Your task to perform on an android device: uninstall "PUBG MOBILE" Image 0: 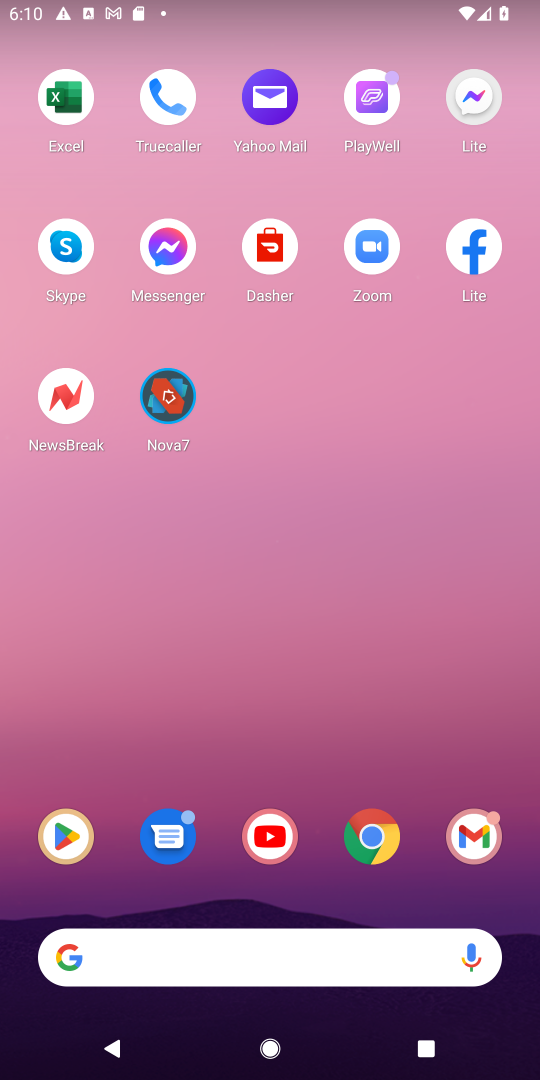
Step 0: press home button
Your task to perform on an android device: uninstall "PUBG MOBILE" Image 1: 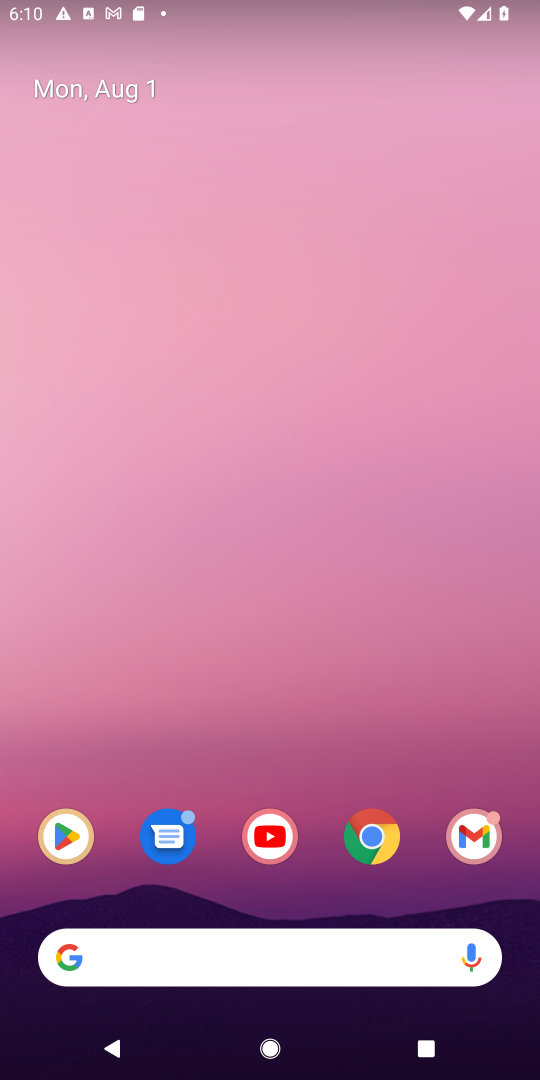
Step 1: click (70, 839)
Your task to perform on an android device: uninstall "PUBG MOBILE" Image 2: 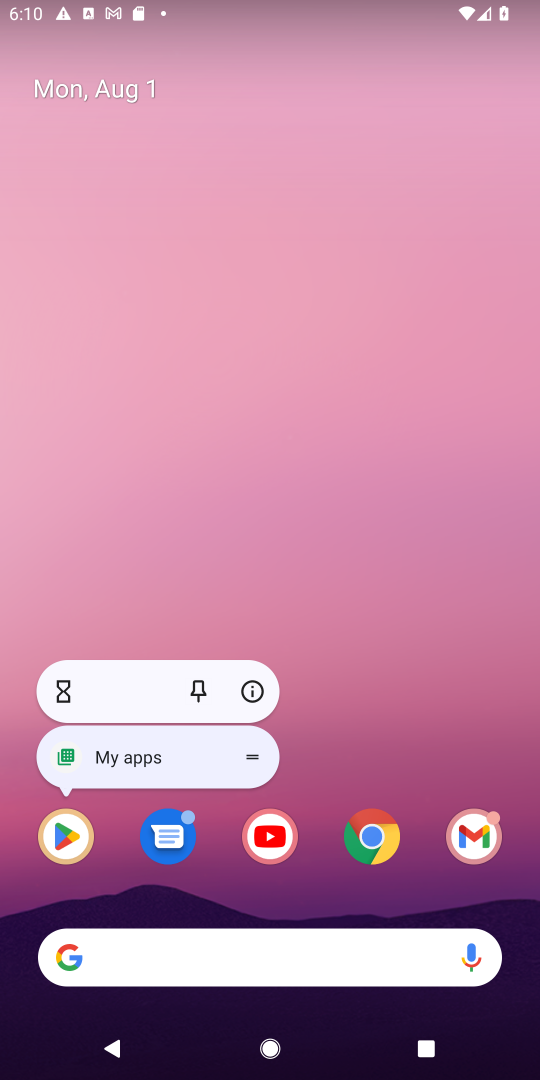
Step 2: click (58, 841)
Your task to perform on an android device: uninstall "PUBG MOBILE" Image 3: 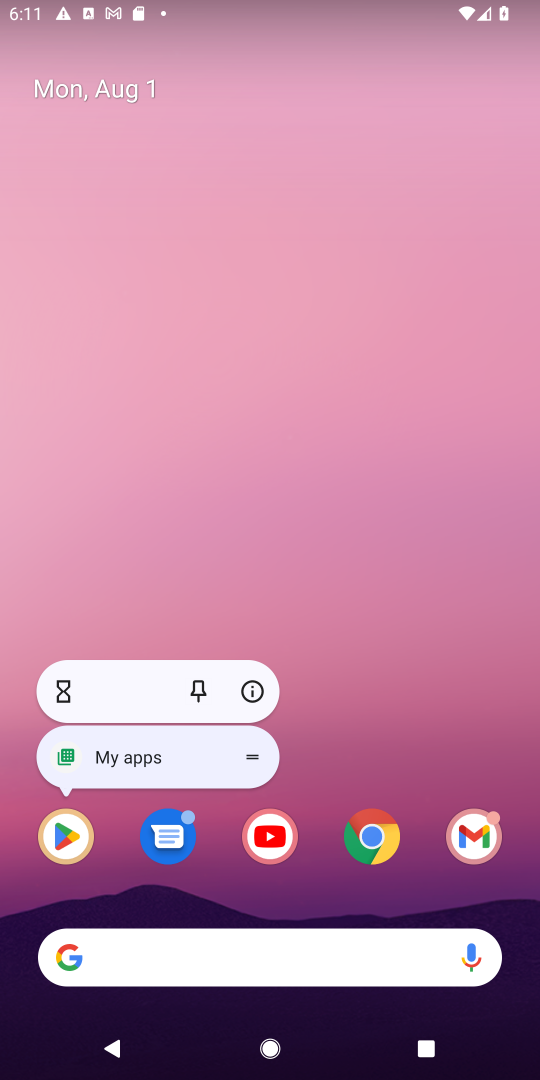
Step 3: click (58, 839)
Your task to perform on an android device: uninstall "PUBG MOBILE" Image 4: 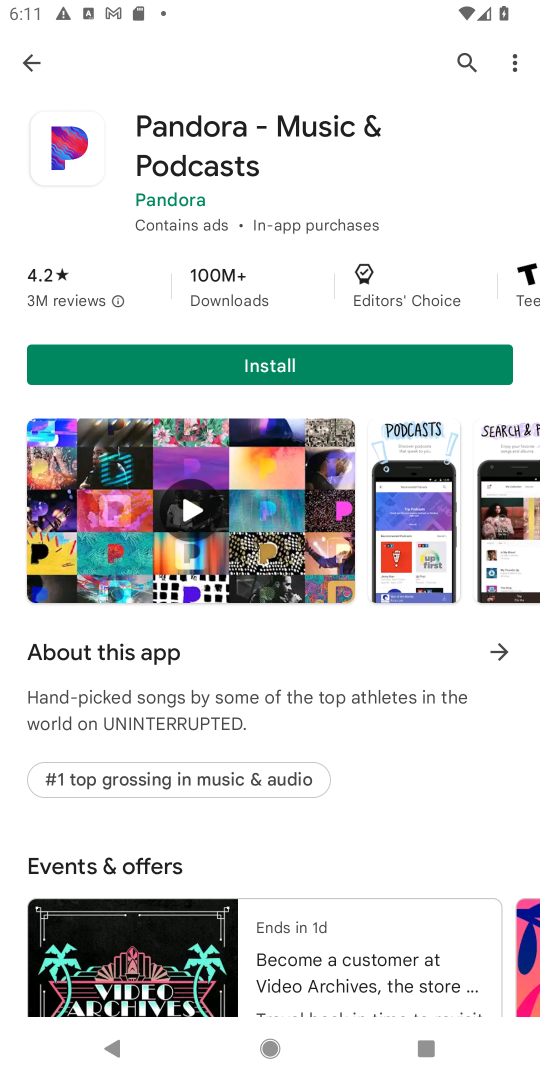
Step 4: click (461, 68)
Your task to perform on an android device: uninstall "PUBG MOBILE" Image 5: 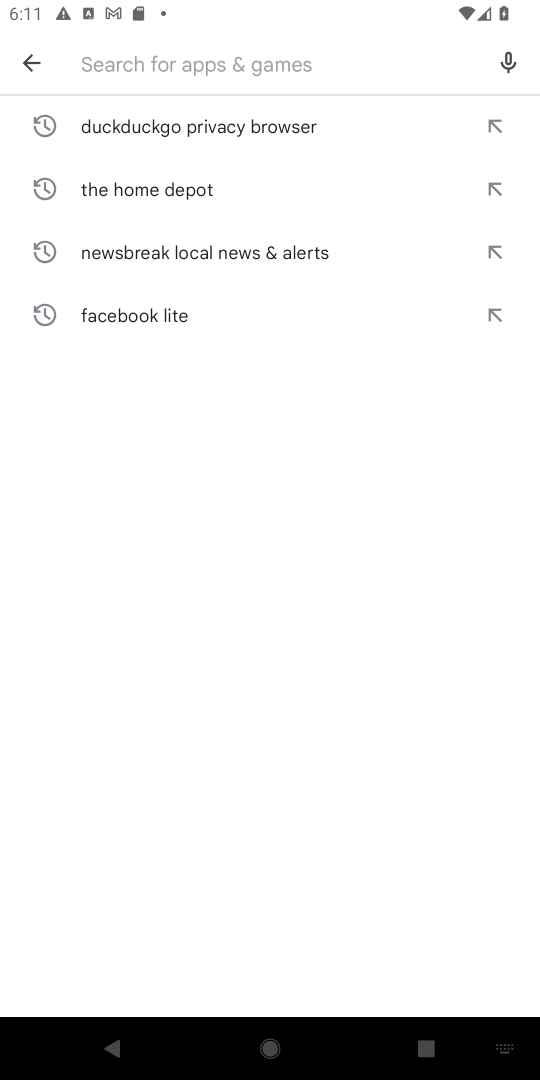
Step 5: type "PUBG MOBILE"
Your task to perform on an android device: uninstall "PUBG MOBILE" Image 6: 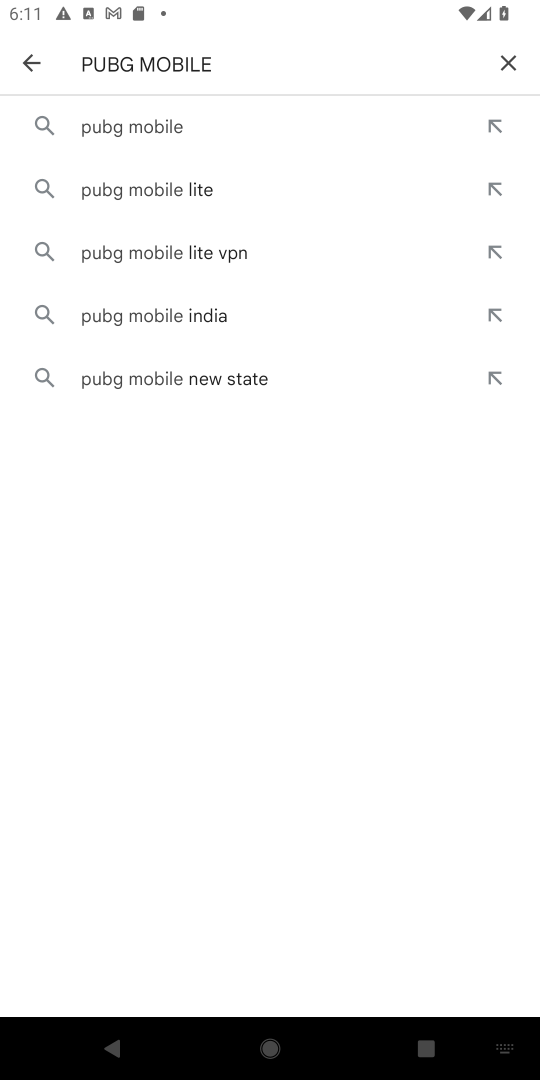
Step 6: click (158, 116)
Your task to perform on an android device: uninstall "PUBG MOBILE" Image 7: 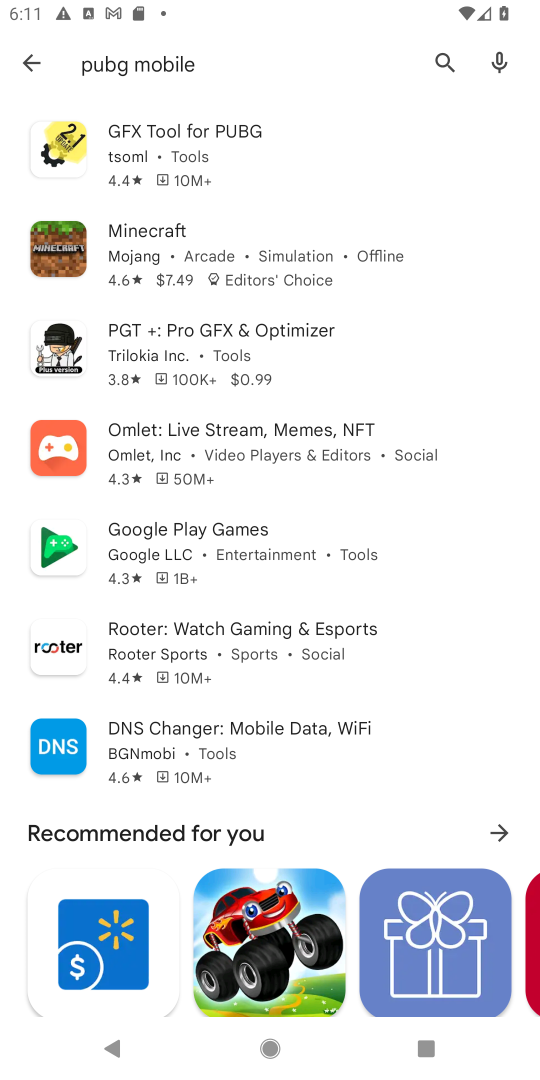
Step 7: task complete